Your task to perform on an android device: turn off improve location accuracy Image 0: 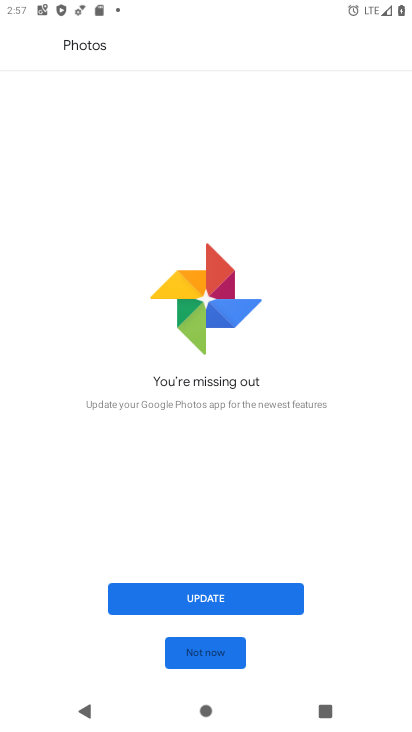
Step 0: press home button
Your task to perform on an android device: turn off improve location accuracy Image 1: 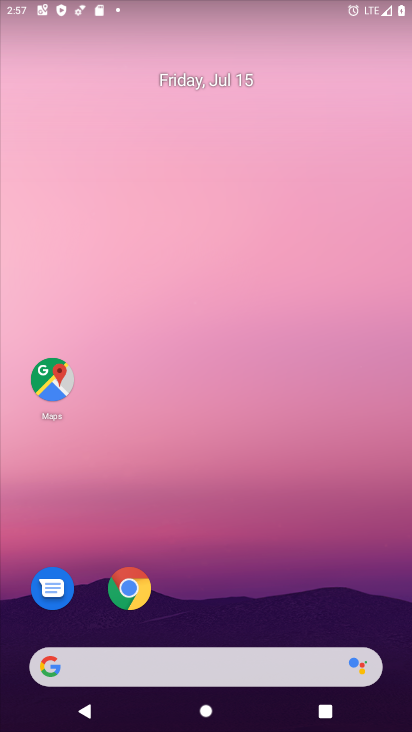
Step 1: drag from (226, 667) to (177, 188)
Your task to perform on an android device: turn off improve location accuracy Image 2: 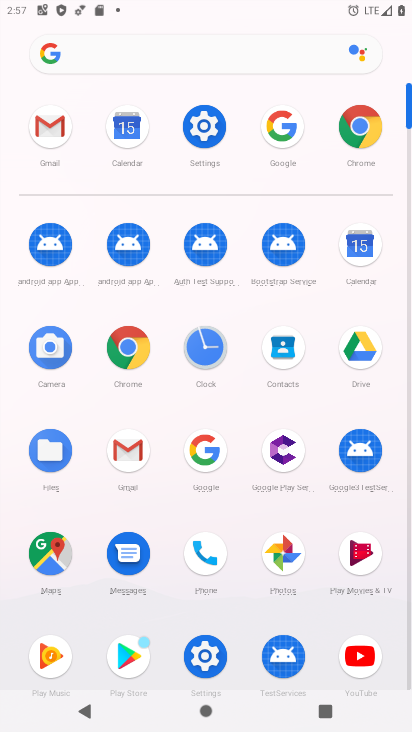
Step 2: click (203, 126)
Your task to perform on an android device: turn off improve location accuracy Image 3: 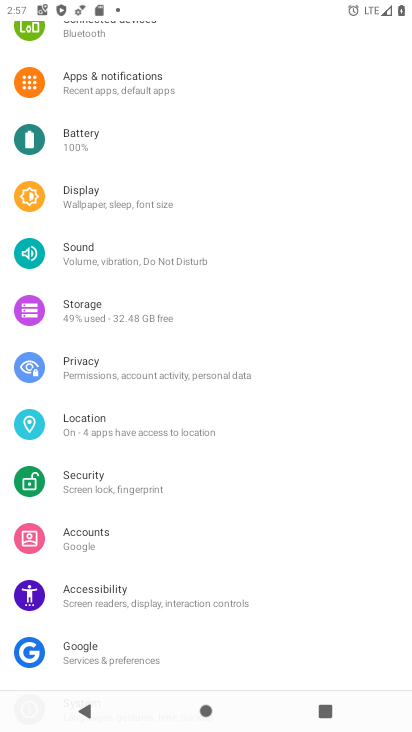
Step 3: click (103, 424)
Your task to perform on an android device: turn off improve location accuracy Image 4: 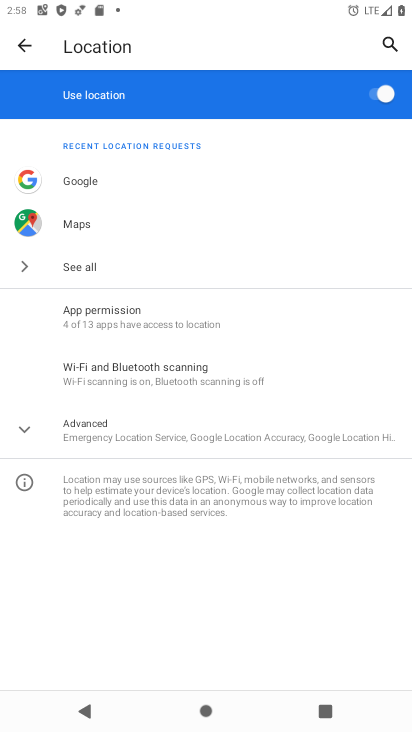
Step 4: click (105, 432)
Your task to perform on an android device: turn off improve location accuracy Image 5: 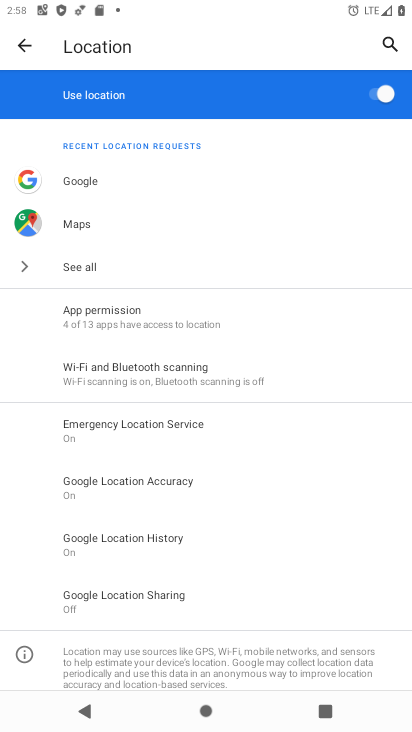
Step 5: click (120, 481)
Your task to perform on an android device: turn off improve location accuracy Image 6: 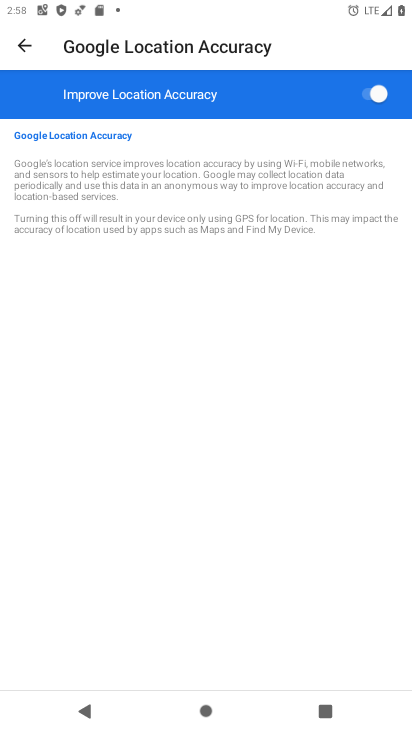
Step 6: click (368, 95)
Your task to perform on an android device: turn off improve location accuracy Image 7: 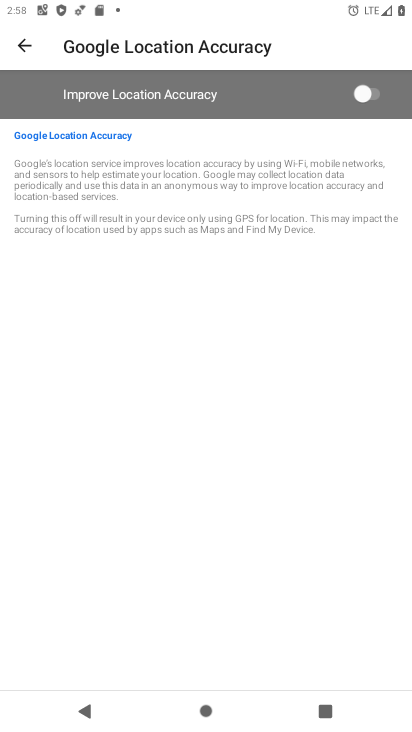
Step 7: task complete